Your task to perform on an android device: Clear the shopping cart on amazon. Search for "bose soundsport free" on amazon, select the first entry, add it to the cart, then select checkout. Image 0: 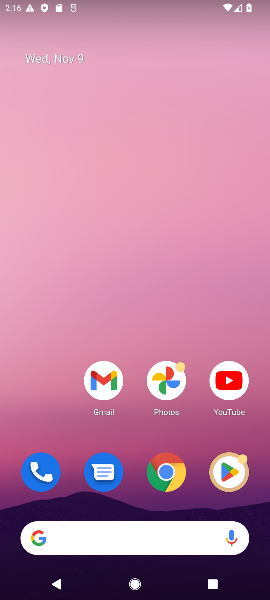
Step 0: click (113, 548)
Your task to perform on an android device: Clear the shopping cart on amazon. Search for "bose soundsport free" on amazon, select the first entry, add it to the cart, then select checkout. Image 1: 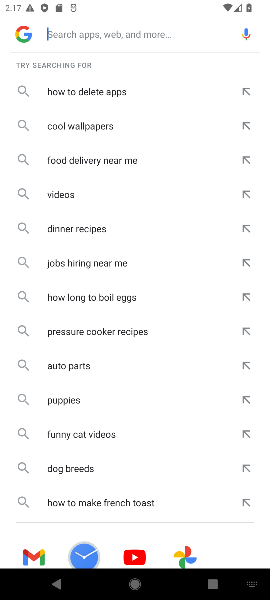
Step 1: type "amazon"
Your task to perform on an android device: Clear the shopping cart on amazon. Search for "bose soundsport free" on amazon, select the first entry, add it to the cart, then select checkout. Image 2: 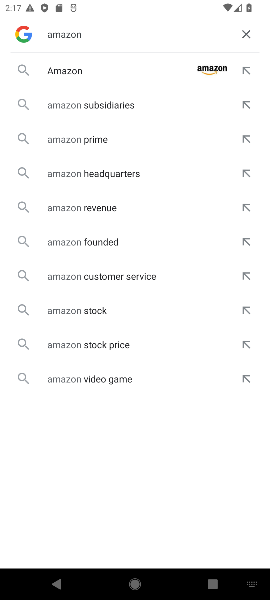
Step 2: click (51, 75)
Your task to perform on an android device: Clear the shopping cart on amazon. Search for "bose soundsport free" on amazon, select the first entry, add it to the cart, then select checkout. Image 3: 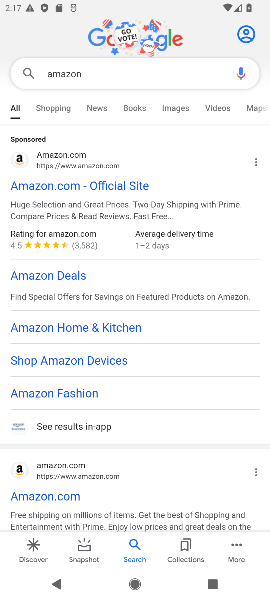
Step 3: click (63, 151)
Your task to perform on an android device: Clear the shopping cart on amazon. Search for "bose soundsport free" on amazon, select the first entry, add it to the cart, then select checkout. Image 4: 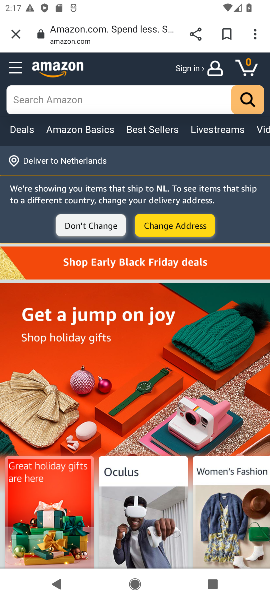
Step 4: click (96, 94)
Your task to perform on an android device: Clear the shopping cart on amazon. Search for "bose soundsport free" on amazon, select the first entry, add it to the cart, then select checkout. Image 5: 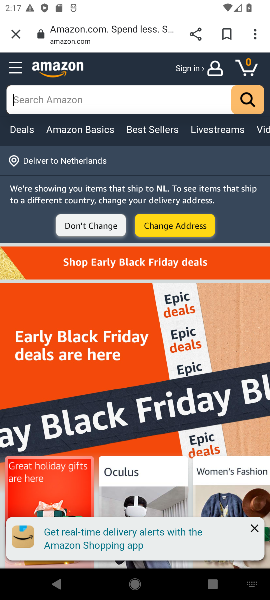
Step 5: type "bose soundport free"
Your task to perform on an android device: Clear the shopping cart on amazon. Search for "bose soundsport free" on amazon, select the first entry, add it to the cart, then select checkout. Image 6: 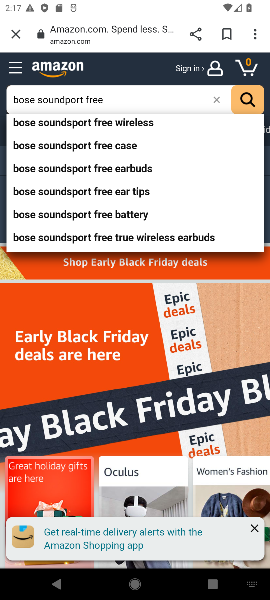
Step 6: click (248, 98)
Your task to perform on an android device: Clear the shopping cart on amazon. Search for "bose soundsport free" on amazon, select the first entry, add it to the cart, then select checkout. Image 7: 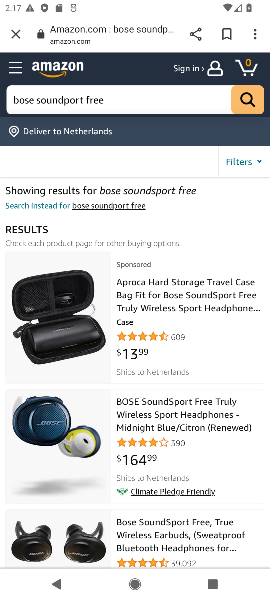
Step 7: click (159, 301)
Your task to perform on an android device: Clear the shopping cart on amazon. Search for "bose soundsport free" on amazon, select the first entry, add it to the cart, then select checkout. Image 8: 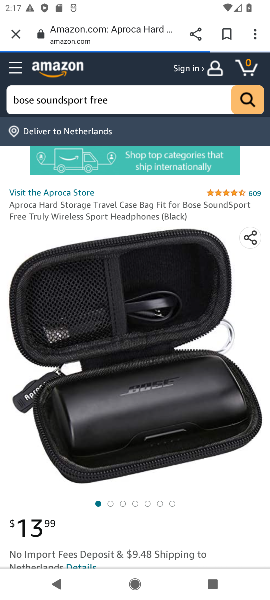
Step 8: drag from (167, 505) to (135, 248)
Your task to perform on an android device: Clear the shopping cart on amazon. Search for "bose soundsport free" on amazon, select the first entry, add it to the cart, then select checkout. Image 9: 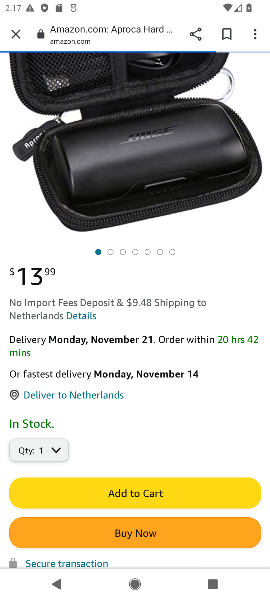
Step 9: click (135, 491)
Your task to perform on an android device: Clear the shopping cart on amazon. Search for "bose soundsport free" on amazon, select the first entry, add it to the cart, then select checkout. Image 10: 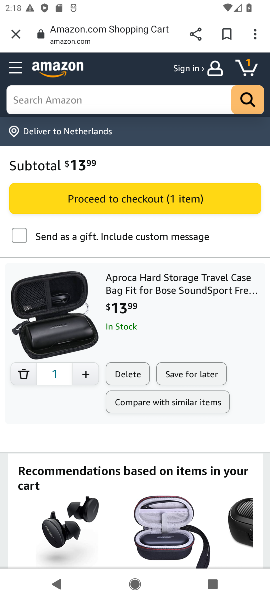
Step 10: click (113, 198)
Your task to perform on an android device: Clear the shopping cart on amazon. Search for "bose soundsport free" on amazon, select the first entry, add it to the cart, then select checkout. Image 11: 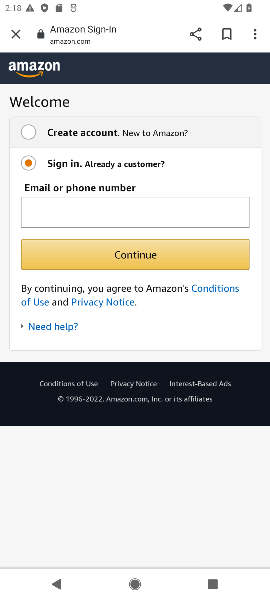
Step 11: task complete